Your task to perform on an android device: Open Reddit.com Image 0: 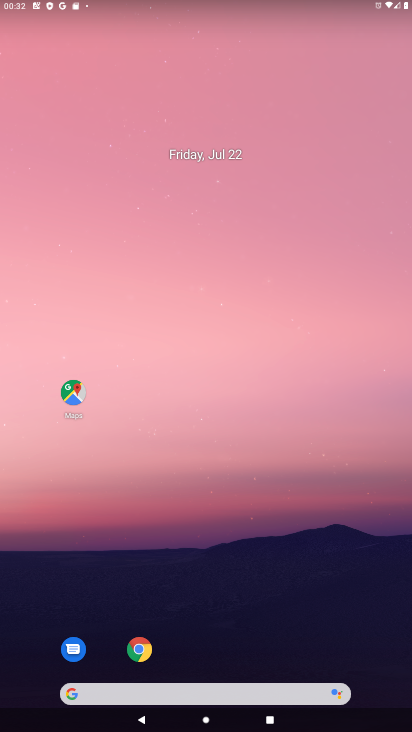
Step 0: drag from (288, 624) to (276, 44)
Your task to perform on an android device: Open Reddit.com Image 1: 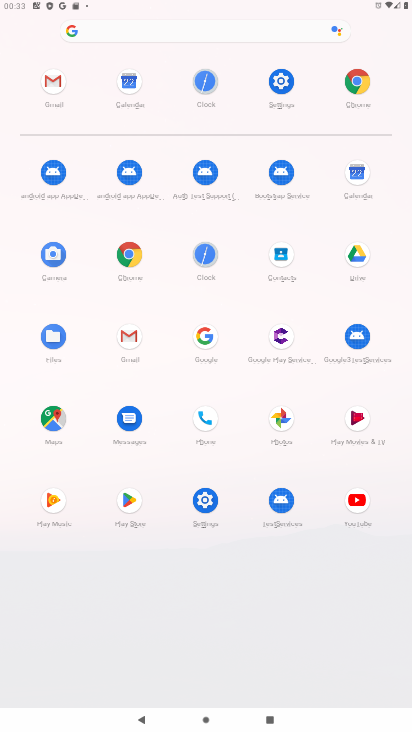
Step 1: click (354, 78)
Your task to perform on an android device: Open Reddit.com Image 2: 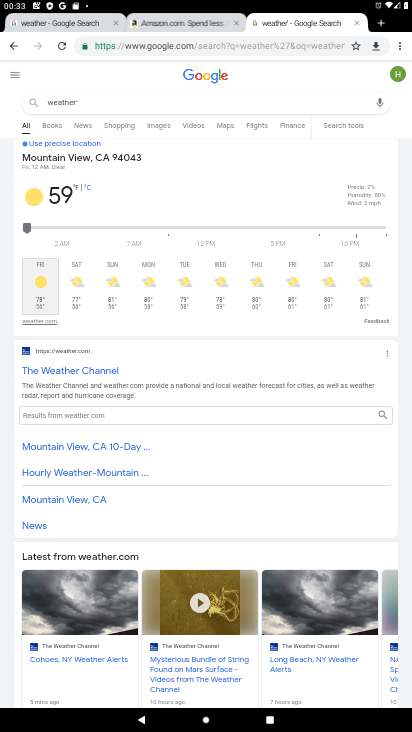
Step 2: click (239, 41)
Your task to perform on an android device: Open Reddit.com Image 3: 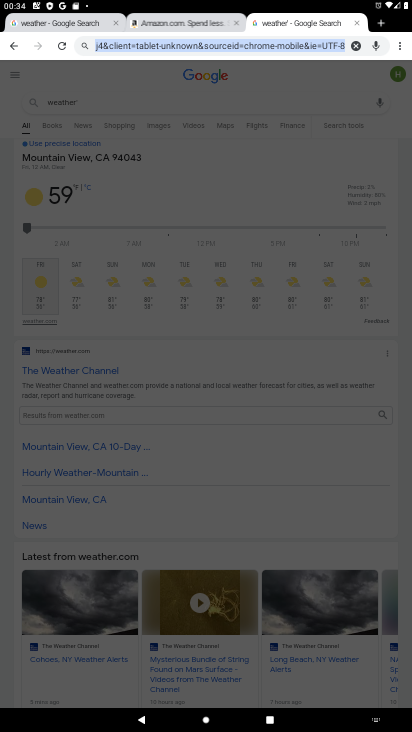
Step 3: type "reddit.com"
Your task to perform on an android device: Open Reddit.com Image 4: 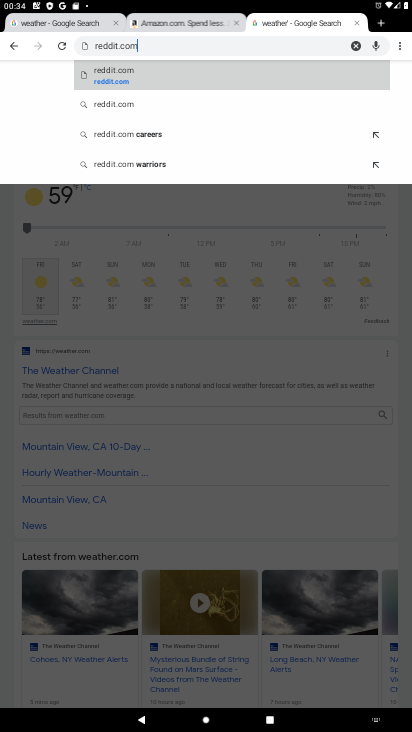
Step 4: click (134, 69)
Your task to perform on an android device: Open Reddit.com Image 5: 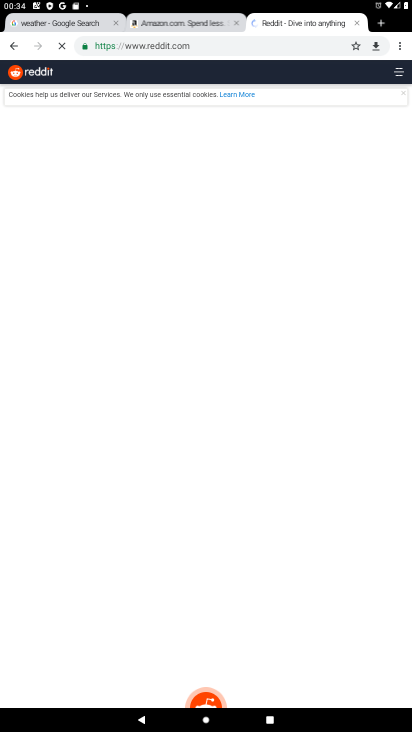
Step 5: task complete